Your task to perform on an android device: turn pop-ups off in chrome Image 0: 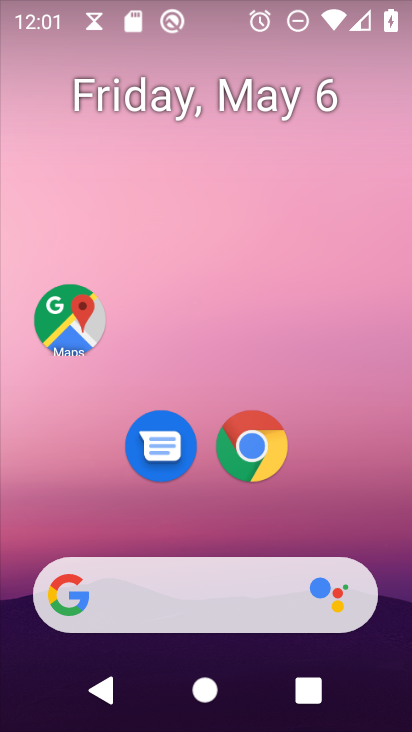
Step 0: press home button
Your task to perform on an android device: turn pop-ups off in chrome Image 1: 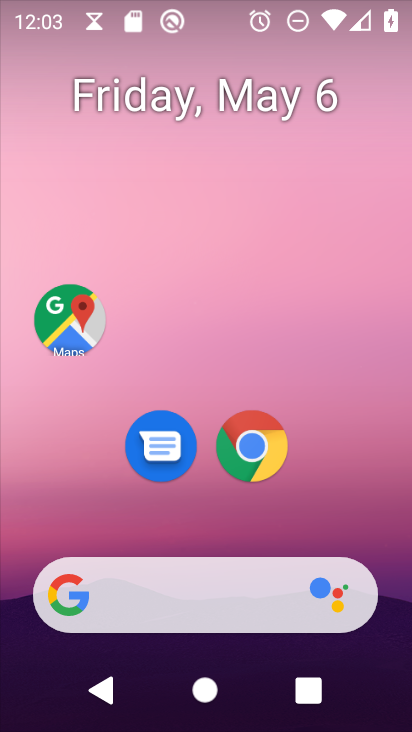
Step 1: drag from (367, 641) to (280, 214)
Your task to perform on an android device: turn pop-ups off in chrome Image 2: 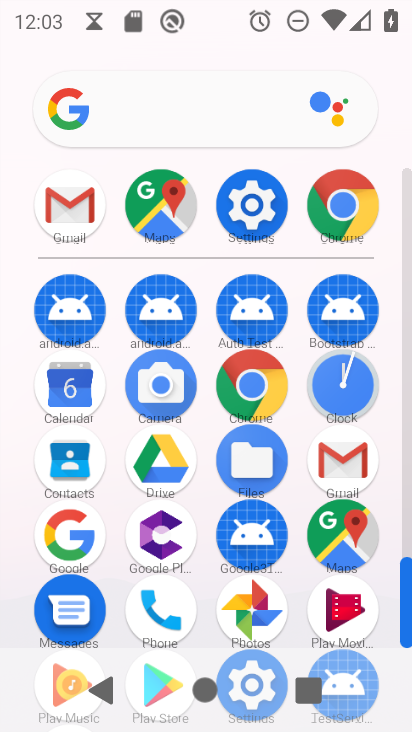
Step 2: click (321, 220)
Your task to perform on an android device: turn pop-ups off in chrome Image 3: 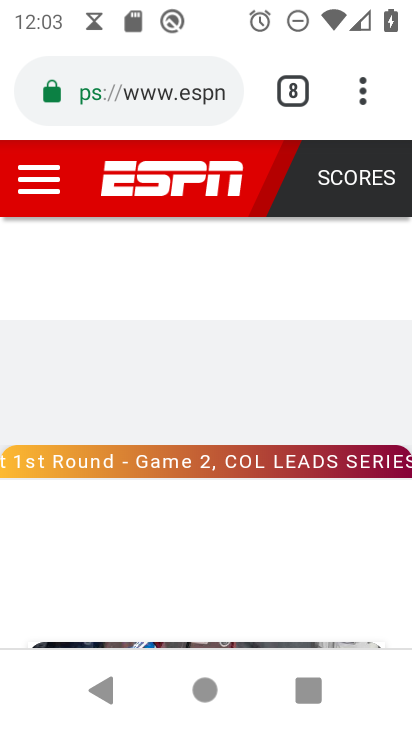
Step 3: click (345, 112)
Your task to perform on an android device: turn pop-ups off in chrome Image 4: 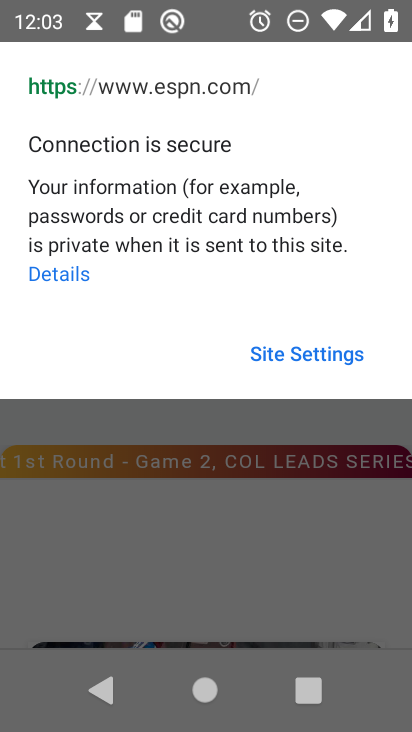
Step 4: click (260, 444)
Your task to perform on an android device: turn pop-ups off in chrome Image 5: 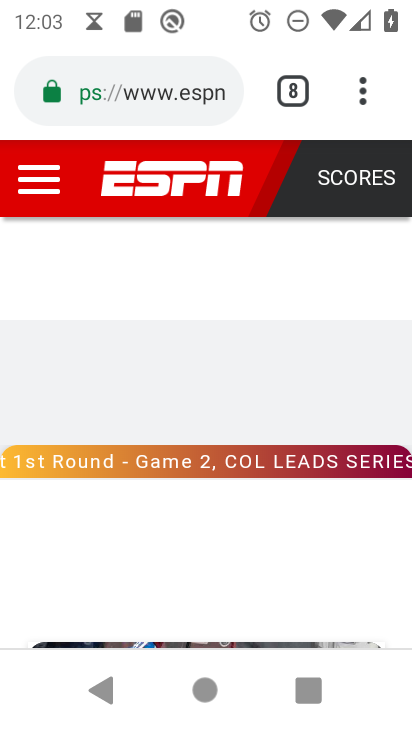
Step 5: click (374, 119)
Your task to perform on an android device: turn pop-ups off in chrome Image 6: 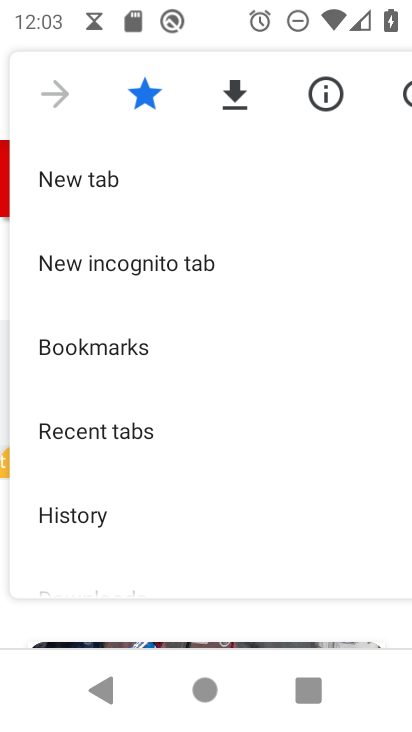
Step 6: drag from (238, 480) to (279, 75)
Your task to perform on an android device: turn pop-ups off in chrome Image 7: 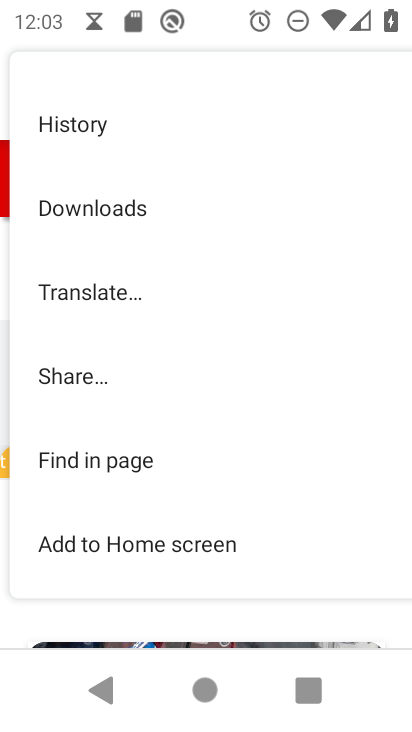
Step 7: drag from (152, 497) to (225, 248)
Your task to perform on an android device: turn pop-ups off in chrome Image 8: 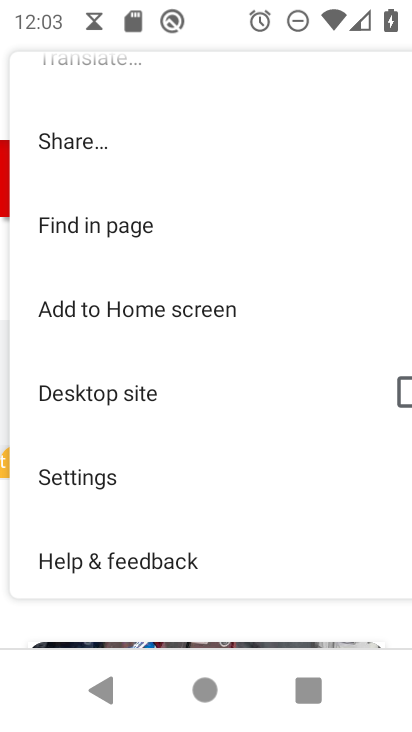
Step 8: click (133, 476)
Your task to perform on an android device: turn pop-ups off in chrome Image 9: 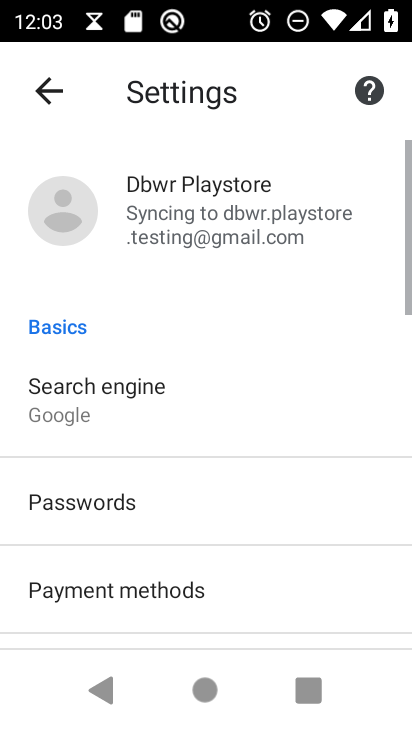
Step 9: drag from (158, 603) to (234, 274)
Your task to perform on an android device: turn pop-ups off in chrome Image 10: 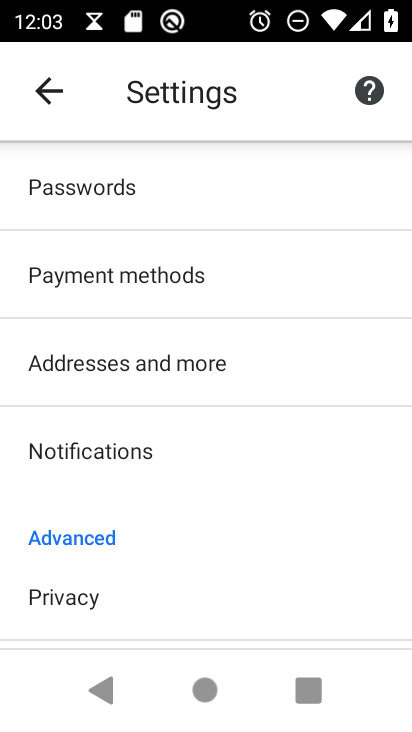
Step 10: drag from (155, 565) to (254, 280)
Your task to perform on an android device: turn pop-ups off in chrome Image 11: 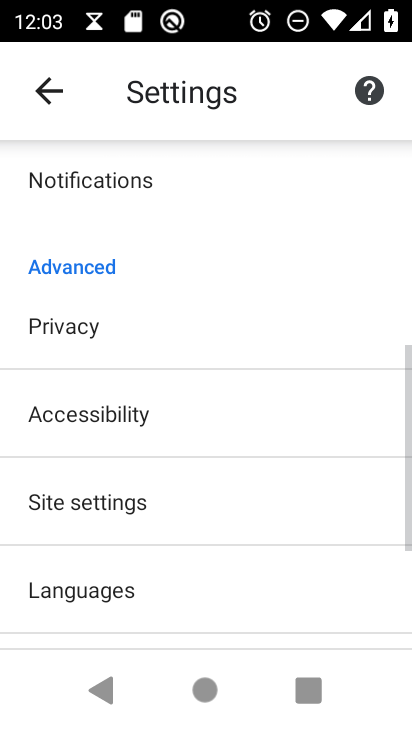
Step 11: click (125, 490)
Your task to perform on an android device: turn pop-ups off in chrome Image 12: 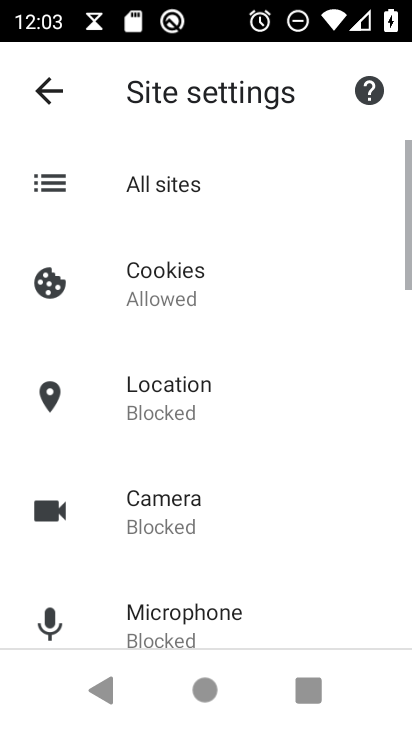
Step 12: drag from (217, 604) to (246, 179)
Your task to perform on an android device: turn pop-ups off in chrome Image 13: 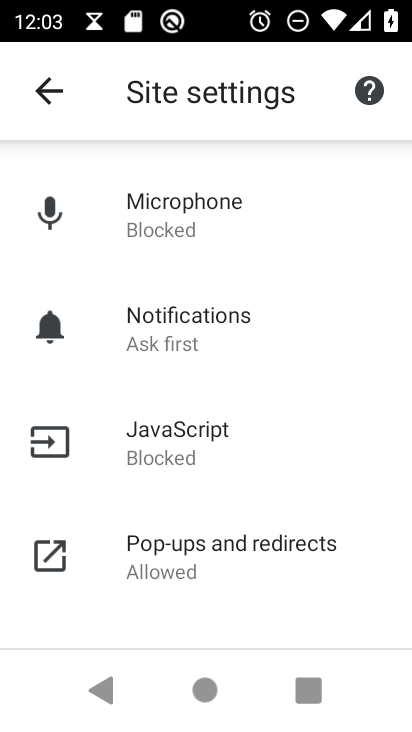
Step 13: click (192, 544)
Your task to perform on an android device: turn pop-ups off in chrome Image 14: 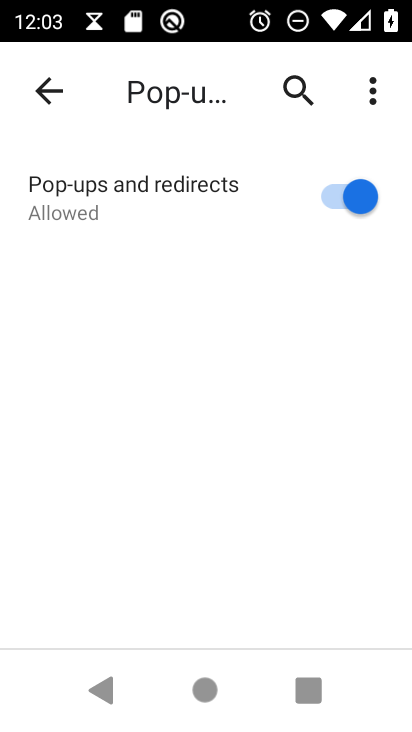
Step 14: click (321, 193)
Your task to perform on an android device: turn pop-ups off in chrome Image 15: 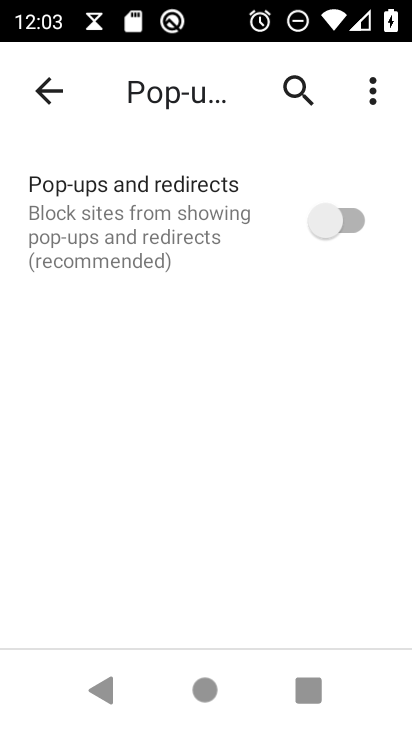
Step 15: task complete